Your task to perform on an android device: turn on bluetooth scan Image 0: 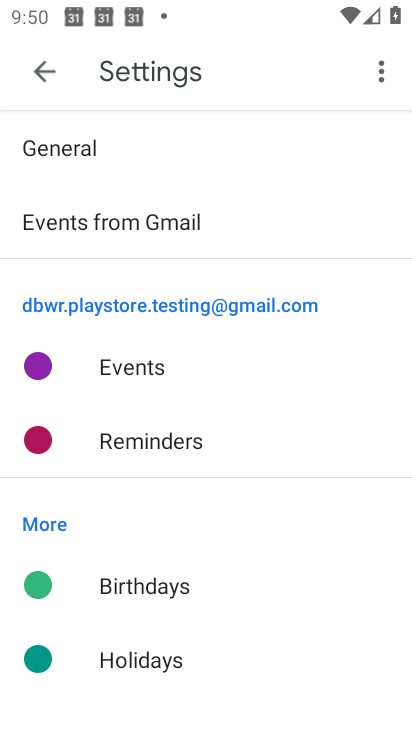
Step 0: press home button
Your task to perform on an android device: turn on bluetooth scan Image 1: 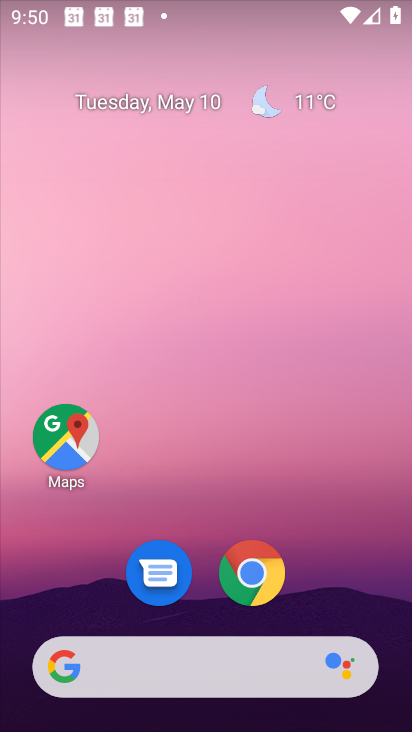
Step 1: drag from (343, 559) to (376, 164)
Your task to perform on an android device: turn on bluetooth scan Image 2: 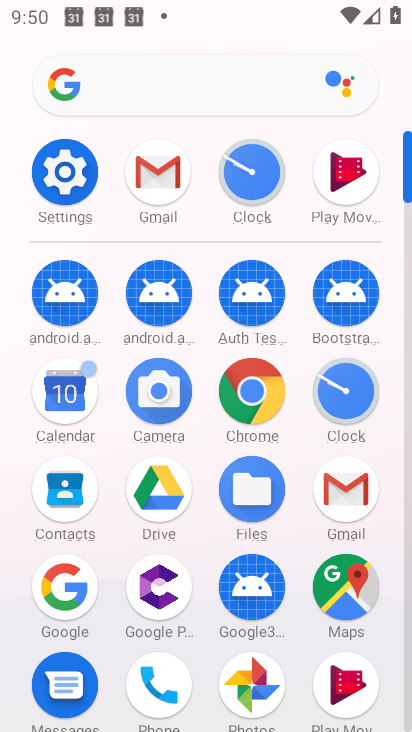
Step 2: click (73, 180)
Your task to perform on an android device: turn on bluetooth scan Image 3: 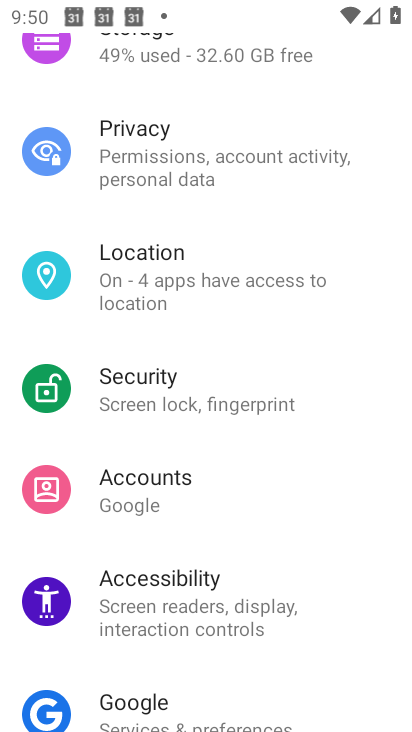
Step 3: drag from (262, 506) to (274, 387)
Your task to perform on an android device: turn on bluetooth scan Image 4: 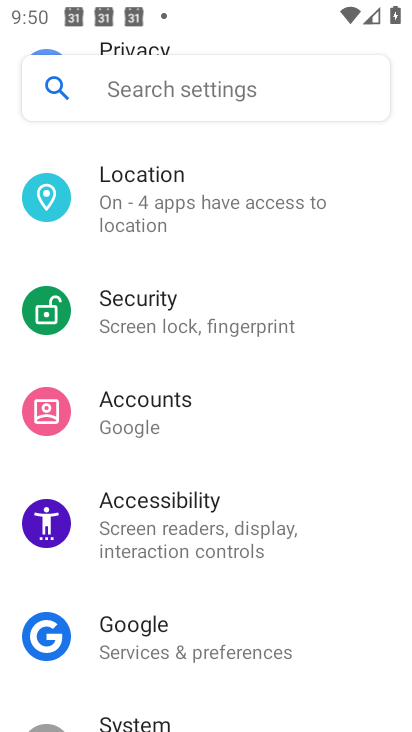
Step 4: click (216, 226)
Your task to perform on an android device: turn on bluetooth scan Image 5: 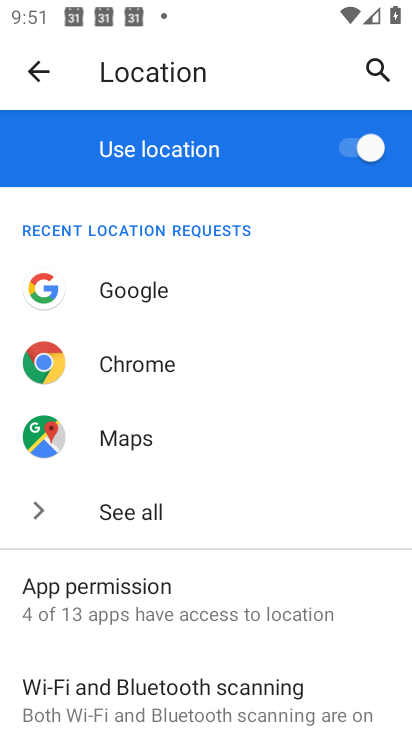
Step 5: click (212, 698)
Your task to perform on an android device: turn on bluetooth scan Image 6: 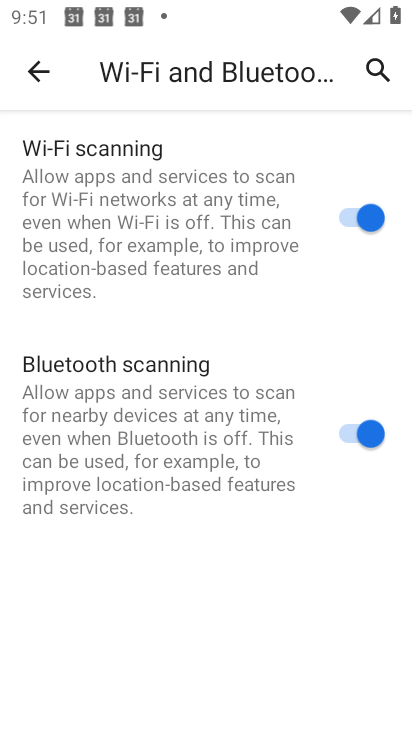
Step 6: task complete